Your task to perform on an android device: turn on wifi Image 0: 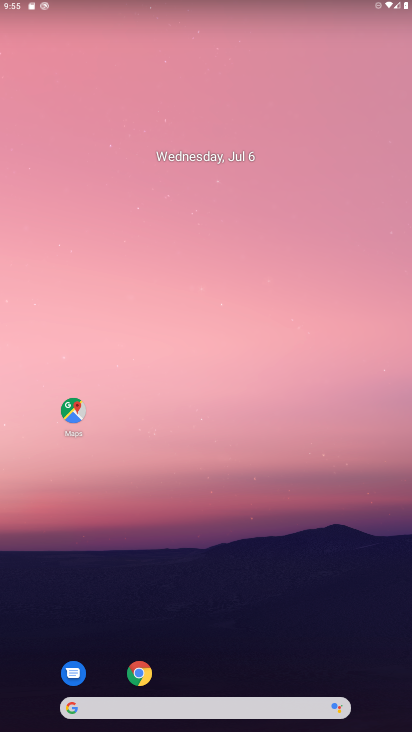
Step 0: click (253, 6)
Your task to perform on an android device: turn on wifi Image 1: 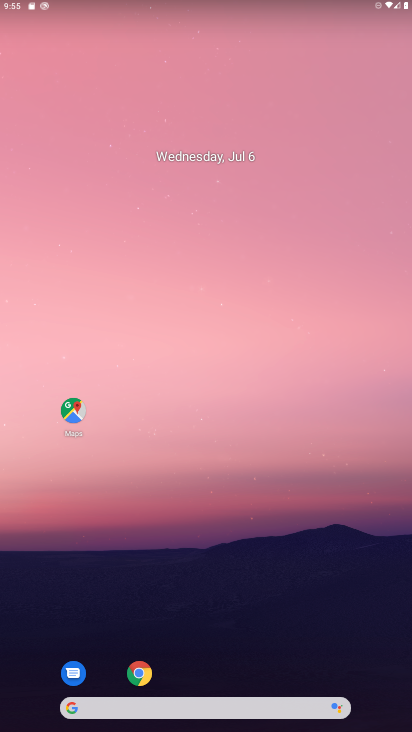
Step 1: task complete